Your task to perform on an android device: Open maps Image 0: 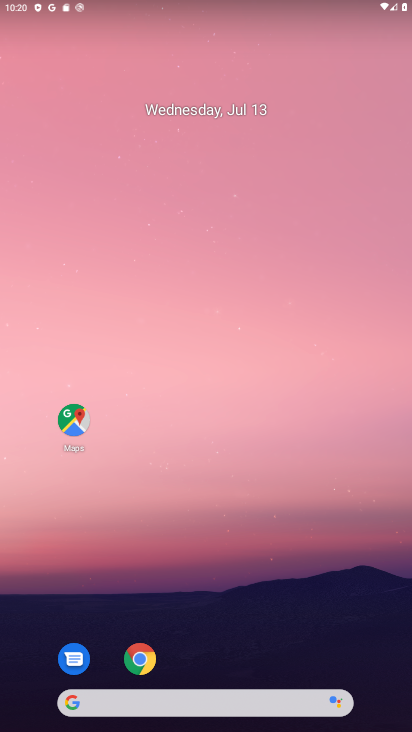
Step 0: click (76, 409)
Your task to perform on an android device: Open maps Image 1: 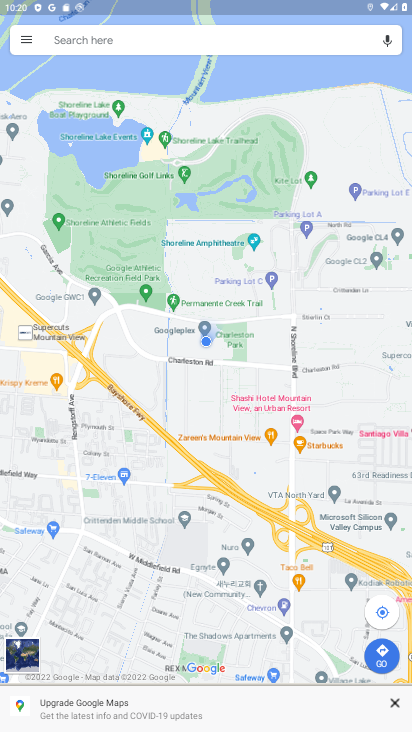
Step 1: task complete